Your task to perform on an android device: toggle sleep mode Image 0: 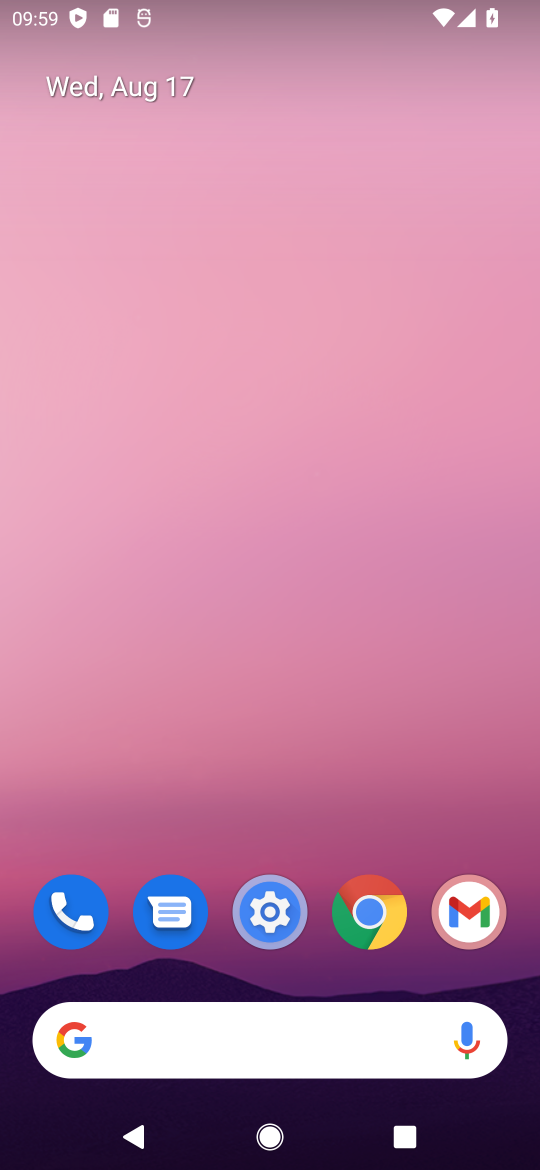
Step 0: click (229, 902)
Your task to perform on an android device: toggle sleep mode Image 1: 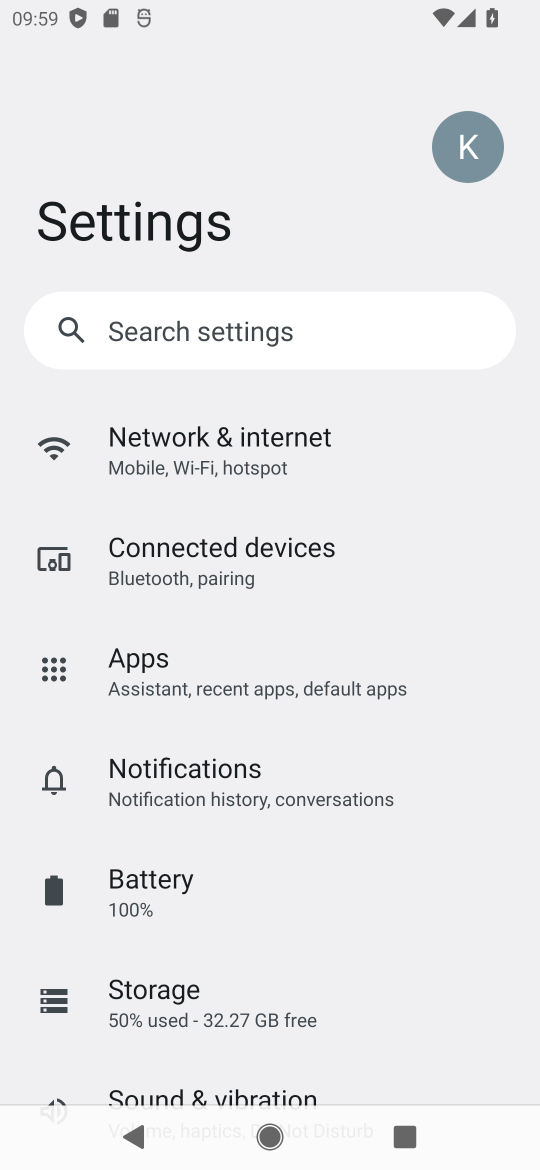
Step 1: drag from (213, 983) to (224, 453)
Your task to perform on an android device: toggle sleep mode Image 2: 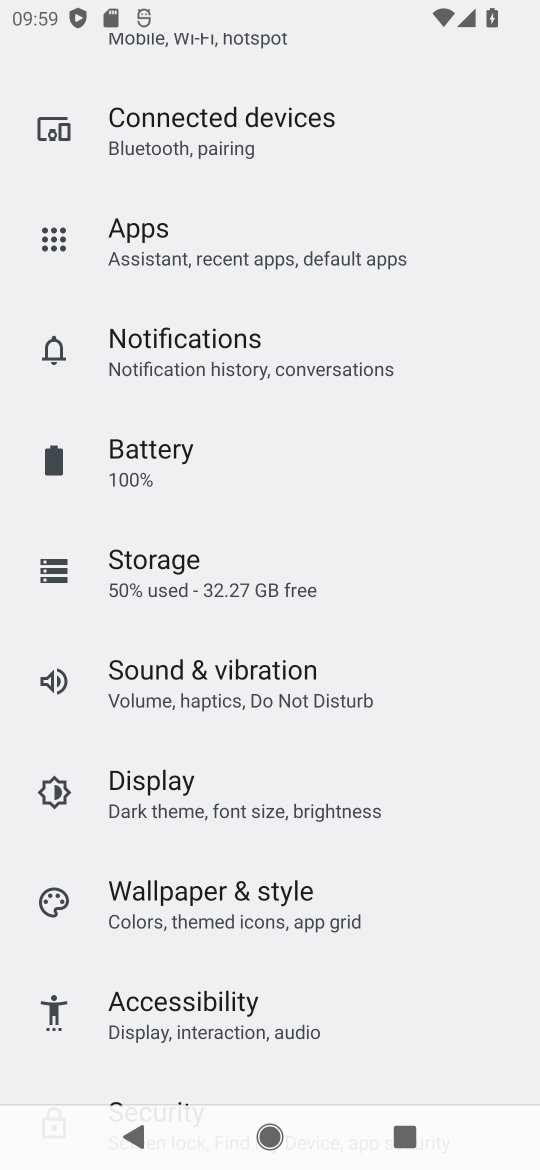
Step 2: click (190, 809)
Your task to perform on an android device: toggle sleep mode Image 3: 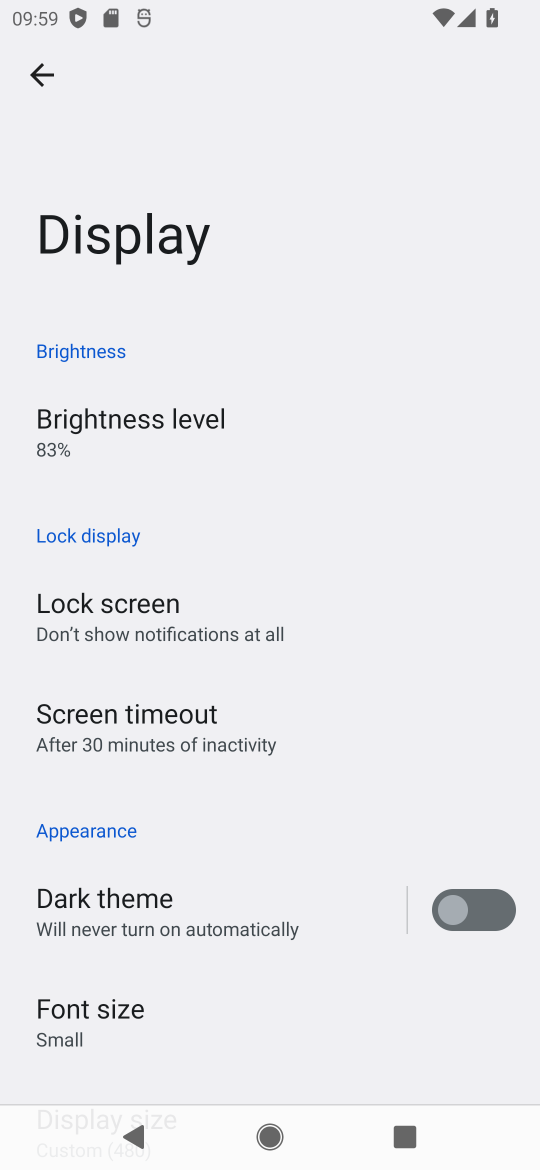
Step 3: click (118, 729)
Your task to perform on an android device: toggle sleep mode Image 4: 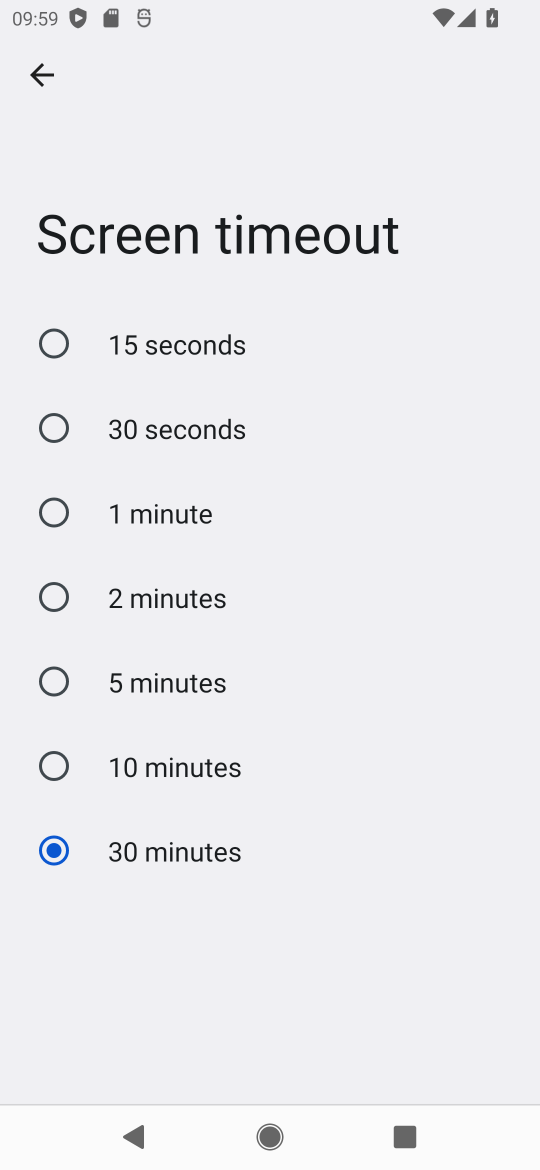
Step 4: click (157, 349)
Your task to perform on an android device: toggle sleep mode Image 5: 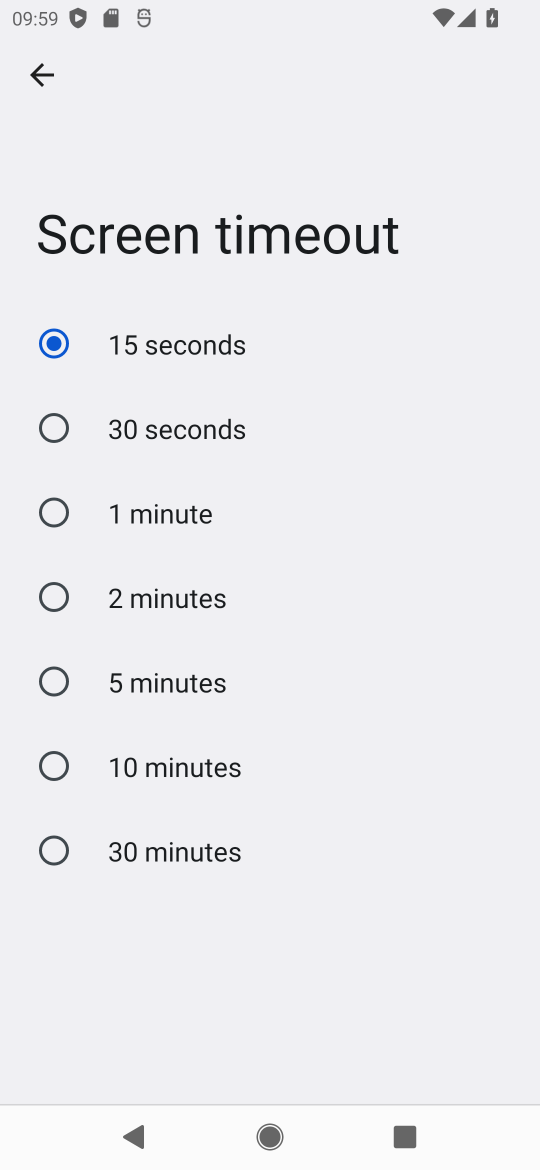
Step 5: task complete